Your task to perform on an android device: Open the Google play store app Image 0: 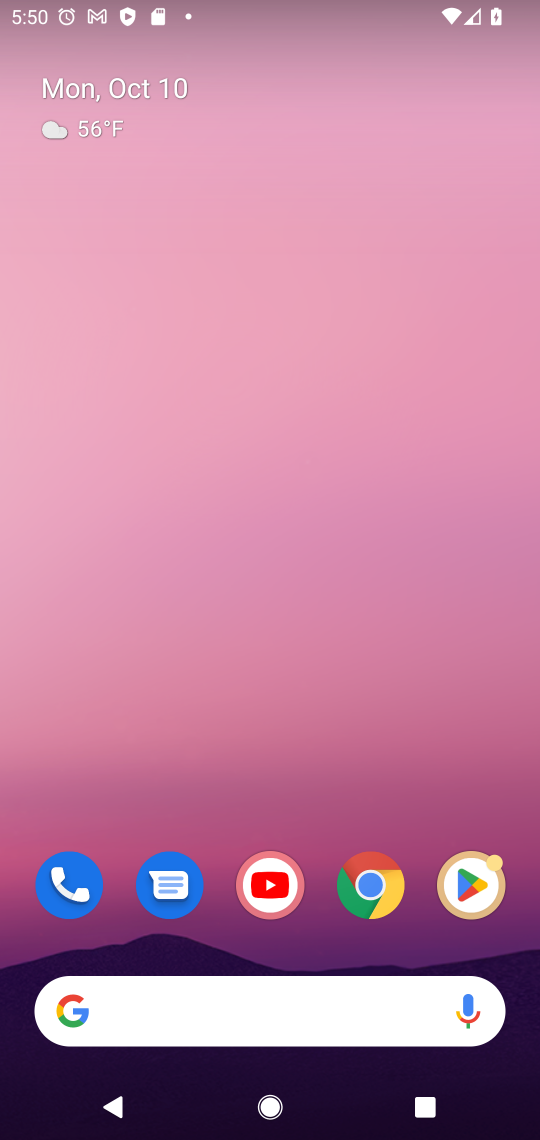
Step 0: click (466, 883)
Your task to perform on an android device: Open the Google play store app Image 1: 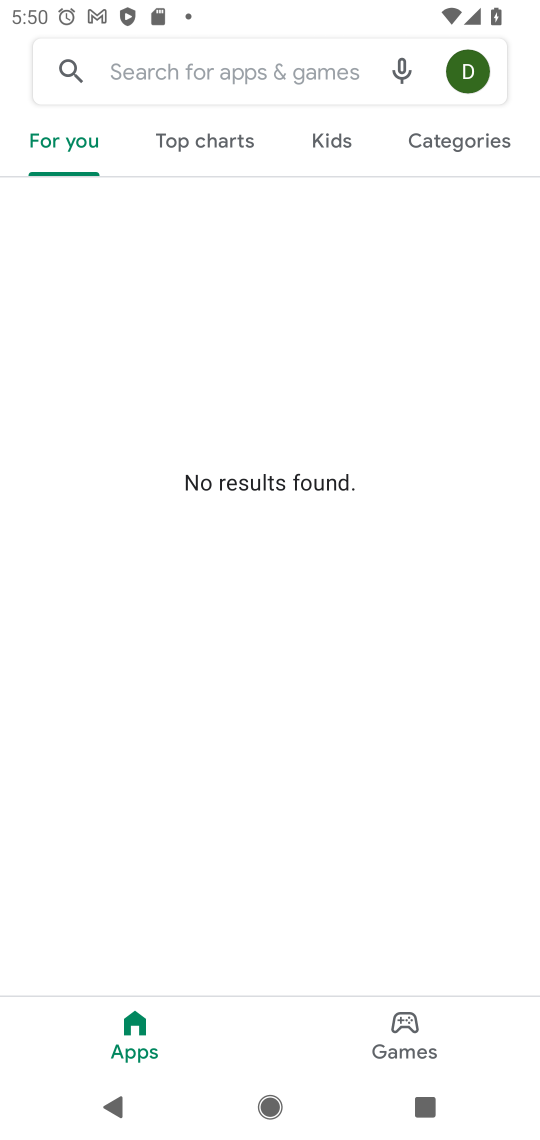
Step 1: task complete